Your task to perform on an android device: show emergency info Image 0: 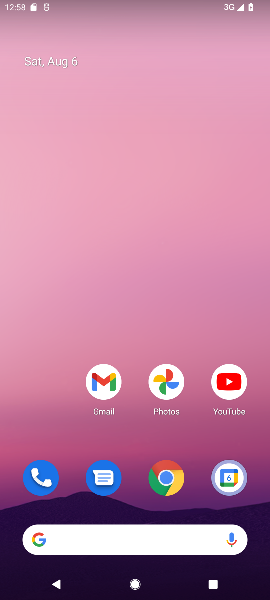
Step 0: drag from (163, 512) to (213, 100)
Your task to perform on an android device: show emergency info Image 1: 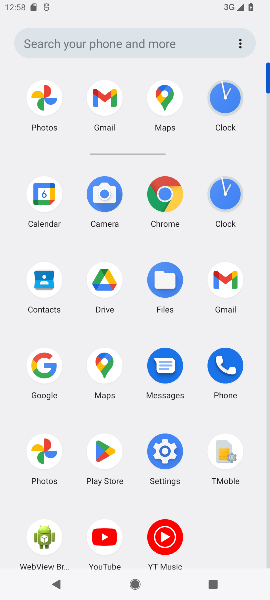
Step 1: click (160, 453)
Your task to perform on an android device: show emergency info Image 2: 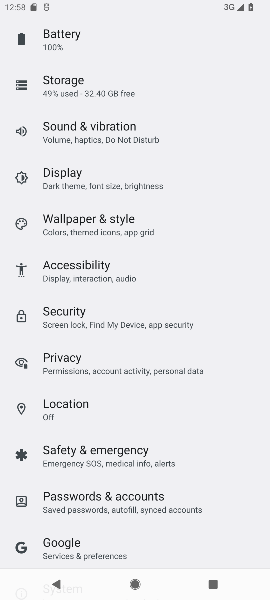
Step 2: drag from (108, 538) to (130, 216)
Your task to perform on an android device: show emergency info Image 3: 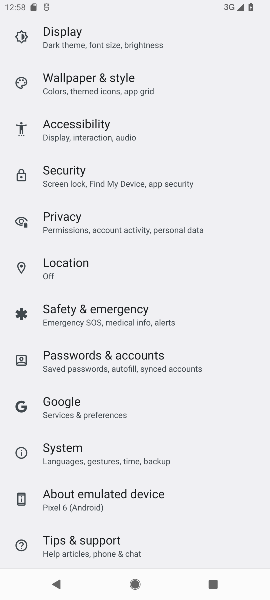
Step 3: click (85, 511)
Your task to perform on an android device: show emergency info Image 4: 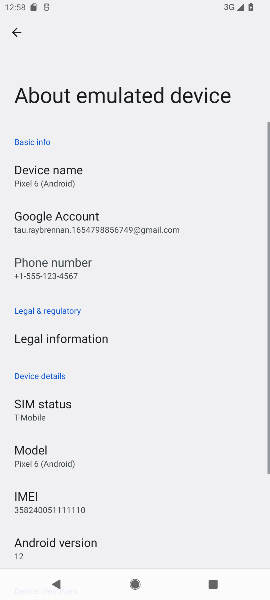
Step 4: click (46, 342)
Your task to perform on an android device: show emergency info Image 5: 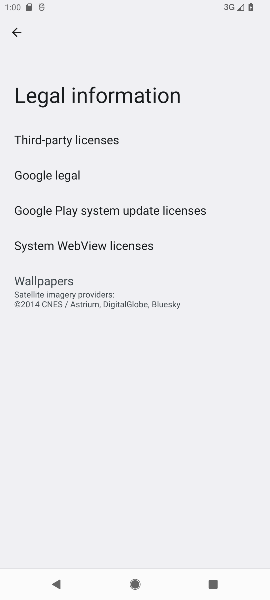
Step 5: task complete